Your task to perform on an android device: turn off smart reply in the gmail app Image 0: 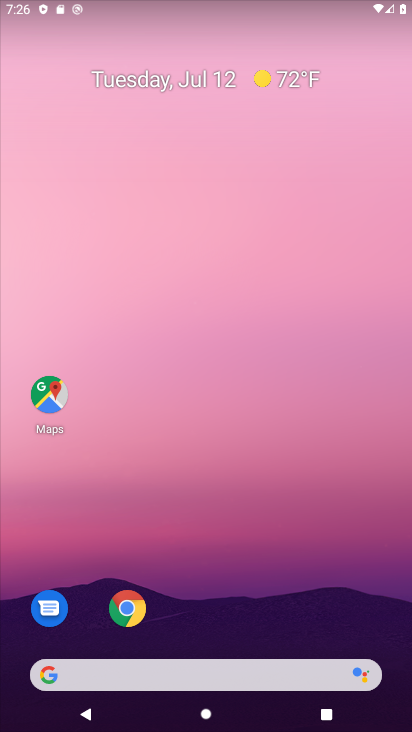
Step 0: drag from (374, 614) to (376, 105)
Your task to perform on an android device: turn off smart reply in the gmail app Image 1: 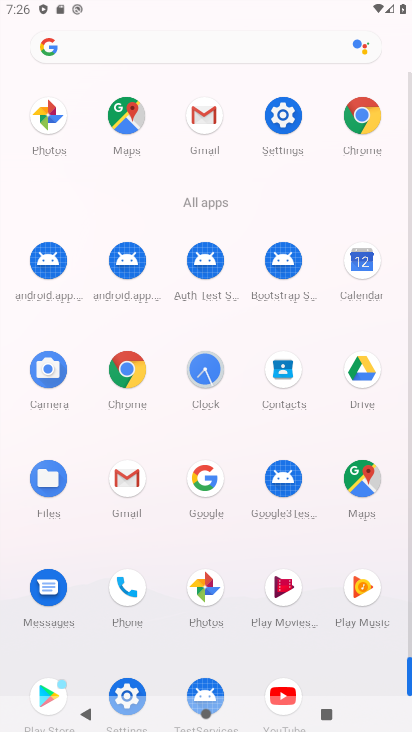
Step 1: click (129, 478)
Your task to perform on an android device: turn off smart reply in the gmail app Image 2: 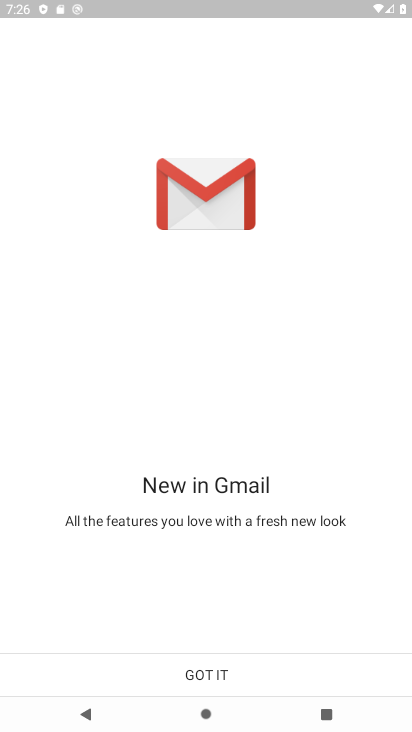
Step 2: click (226, 676)
Your task to perform on an android device: turn off smart reply in the gmail app Image 3: 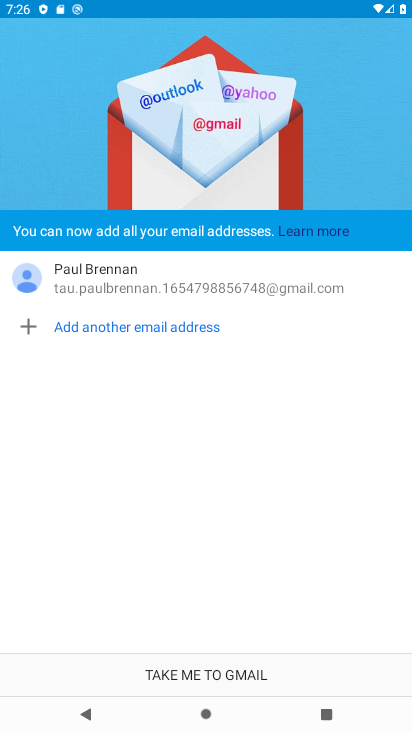
Step 3: click (226, 676)
Your task to perform on an android device: turn off smart reply in the gmail app Image 4: 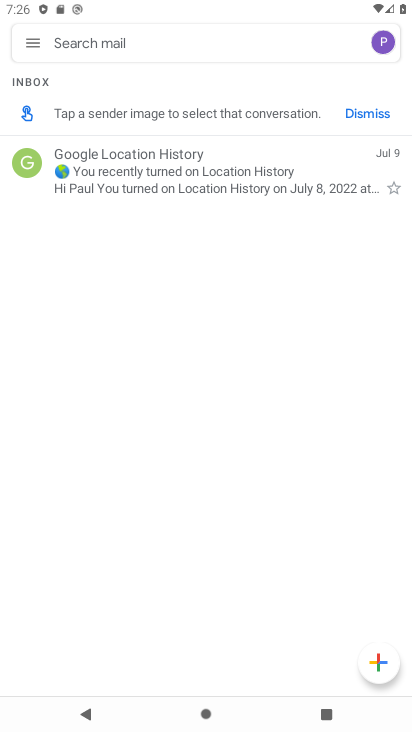
Step 4: click (32, 39)
Your task to perform on an android device: turn off smart reply in the gmail app Image 5: 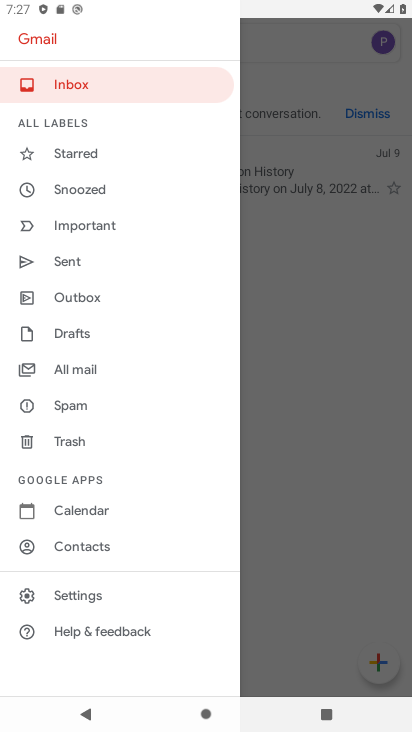
Step 5: click (149, 598)
Your task to perform on an android device: turn off smart reply in the gmail app Image 6: 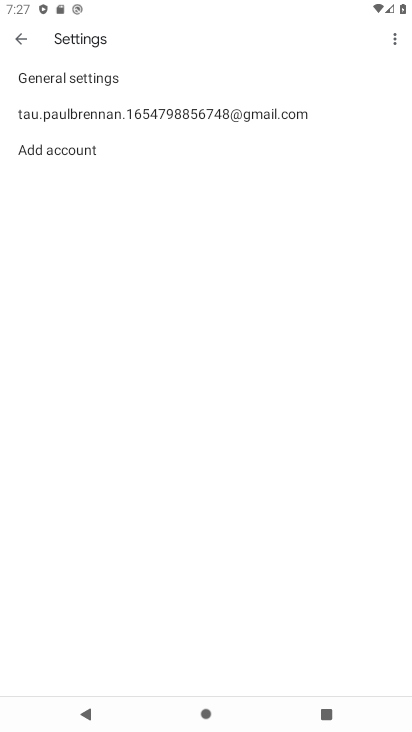
Step 6: click (265, 112)
Your task to perform on an android device: turn off smart reply in the gmail app Image 7: 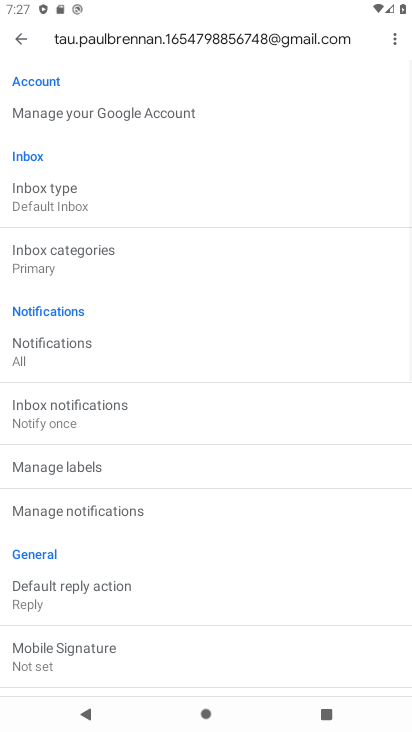
Step 7: drag from (317, 315) to (332, 213)
Your task to perform on an android device: turn off smart reply in the gmail app Image 8: 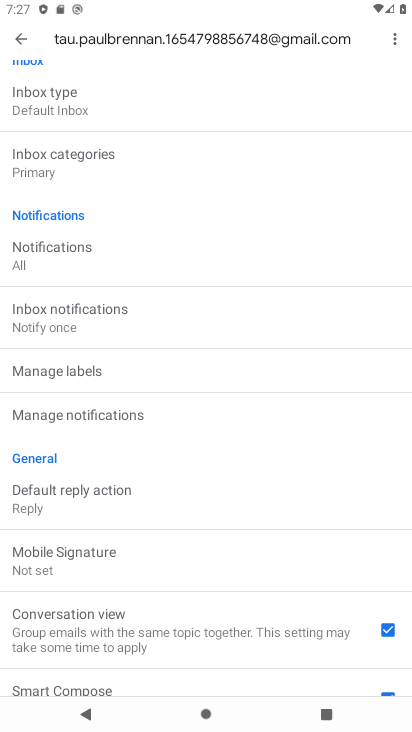
Step 8: drag from (331, 335) to (336, 224)
Your task to perform on an android device: turn off smart reply in the gmail app Image 9: 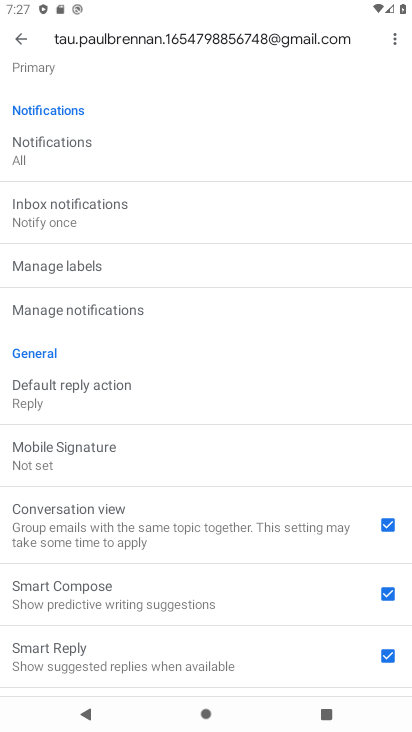
Step 9: drag from (333, 371) to (335, 247)
Your task to perform on an android device: turn off smart reply in the gmail app Image 10: 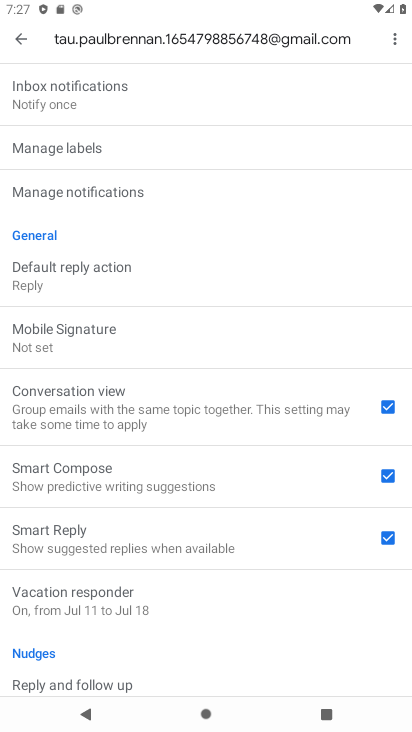
Step 10: drag from (327, 355) to (329, 265)
Your task to perform on an android device: turn off smart reply in the gmail app Image 11: 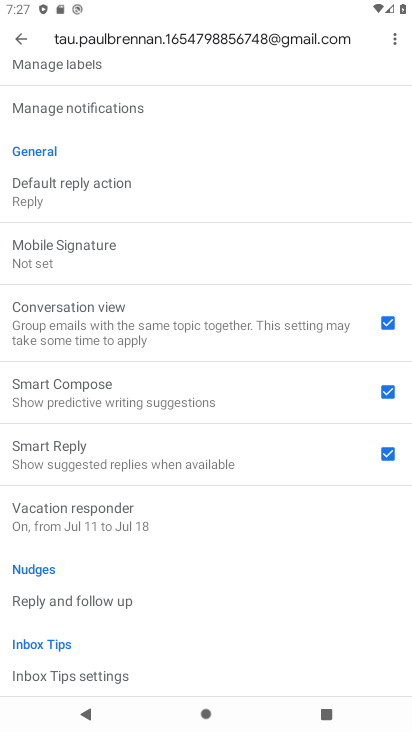
Step 11: drag from (328, 378) to (341, 215)
Your task to perform on an android device: turn off smart reply in the gmail app Image 12: 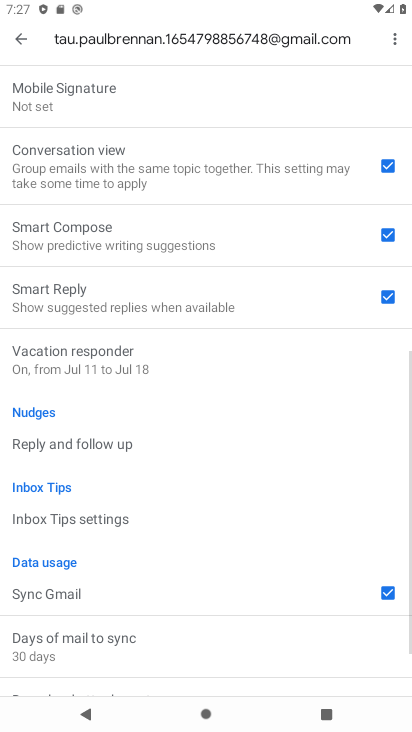
Step 12: drag from (327, 408) to (332, 259)
Your task to perform on an android device: turn off smart reply in the gmail app Image 13: 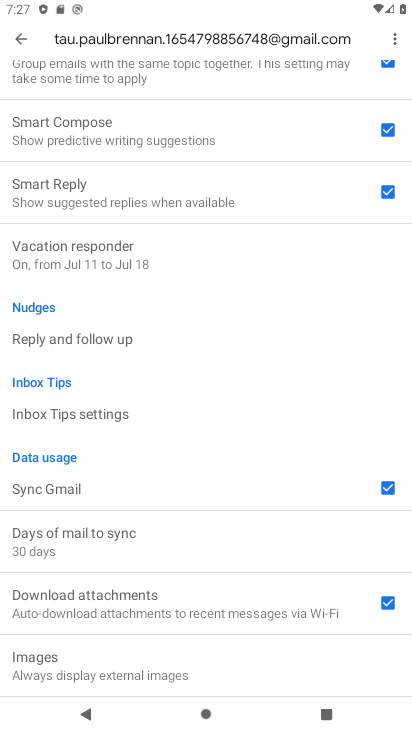
Step 13: click (395, 191)
Your task to perform on an android device: turn off smart reply in the gmail app Image 14: 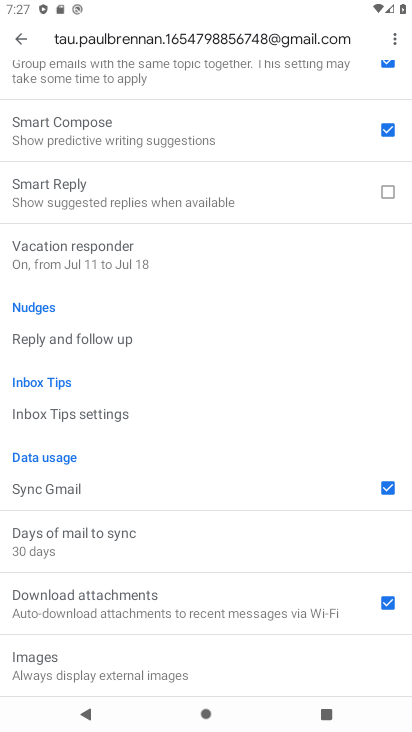
Step 14: task complete